Your task to perform on an android device: turn pop-ups on in chrome Image 0: 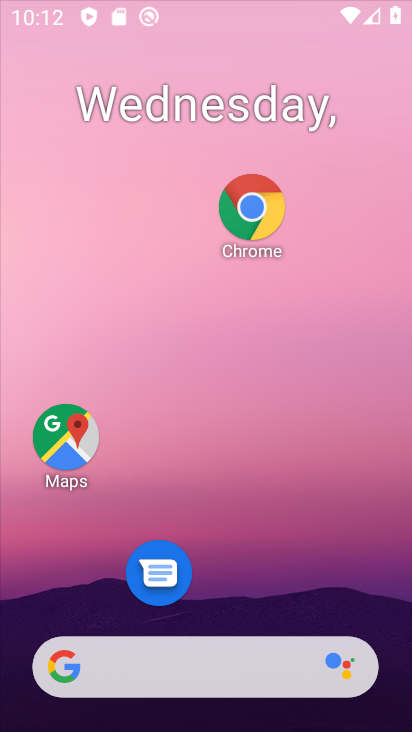
Step 0: drag from (281, 538) to (277, 105)
Your task to perform on an android device: turn pop-ups on in chrome Image 1: 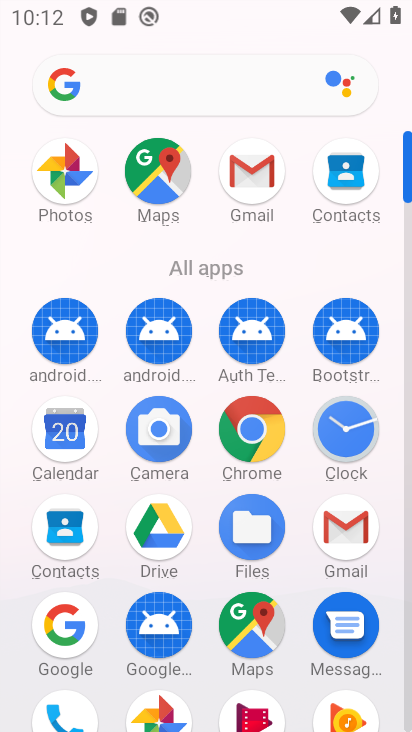
Step 1: click (243, 445)
Your task to perform on an android device: turn pop-ups on in chrome Image 2: 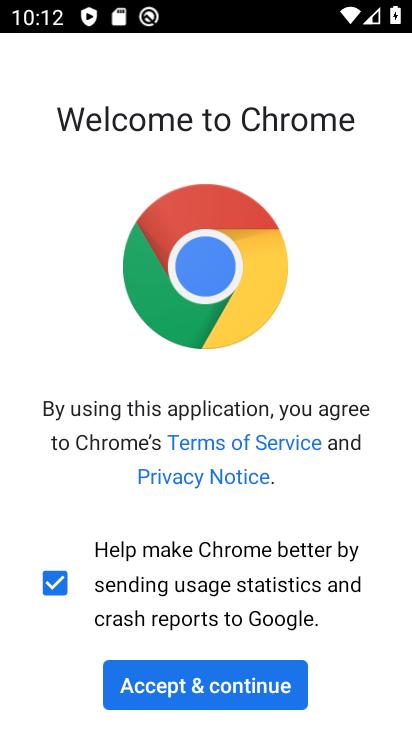
Step 2: click (250, 693)
Your task to perform on an android device: turn pop-ups on in chrome Image 3: 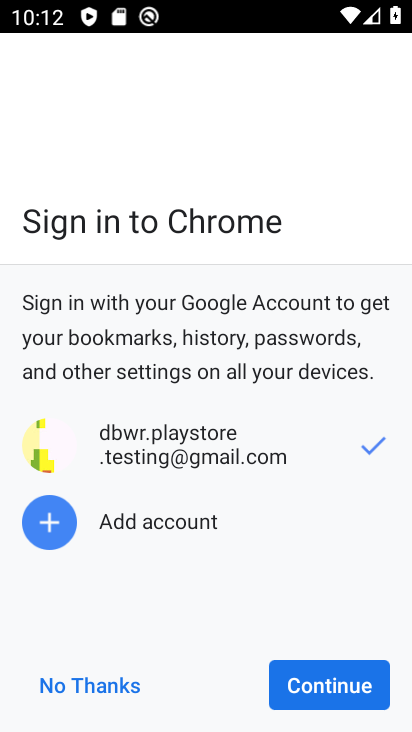
Step 3: click (293, 682)
Your task to perform on an android device: turn pop-ups on in chrome Image 4: 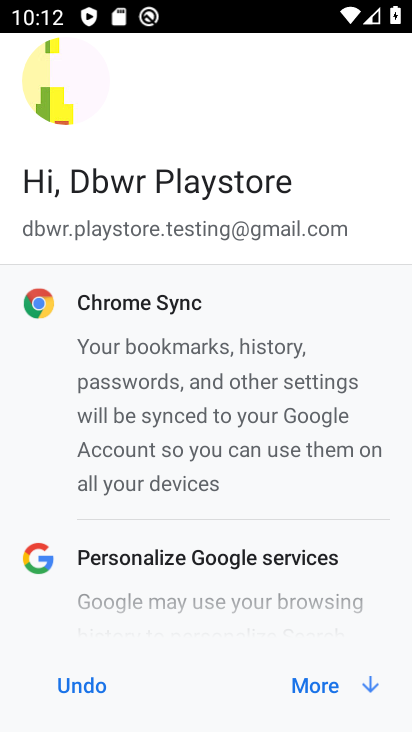
Step 4: click (290, 687)
Your task to perform on an android device: turn pop-ups on in chrome Image 5: 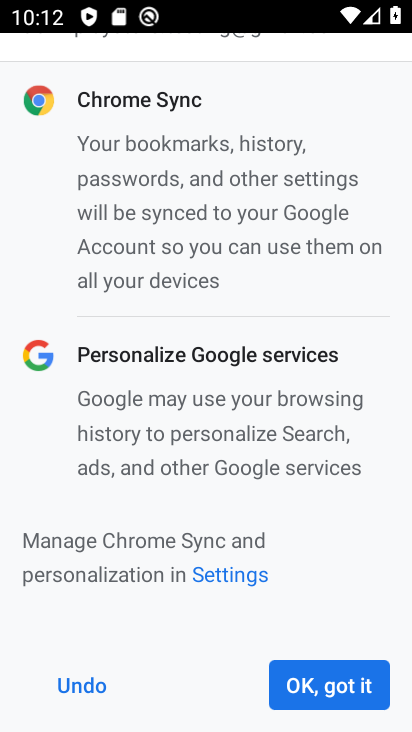
Step 5: click (290, 687)
Your task to perform on an android device: turn pop-ups on in chrome Image 6: 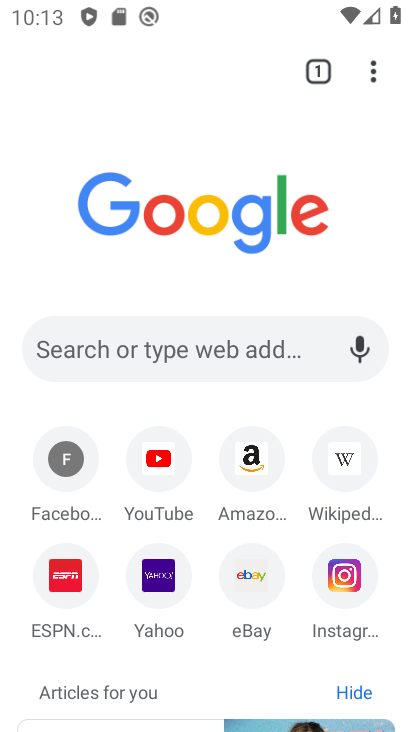
Step 6: drag from (372, 73) to (234, 597)
Your task to perform on an android device: turn pop-ups on in chrome Image 7: 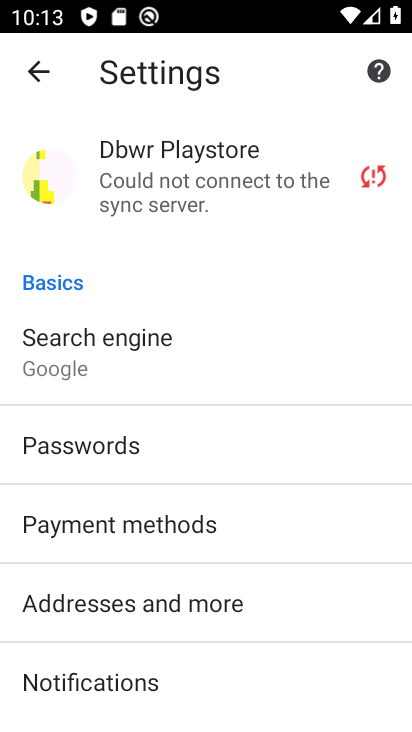
Step 7: drag from (240, 665) to (218, 333)
Your task to perform on an android device: turn pop-ups on in chrome Image 8: 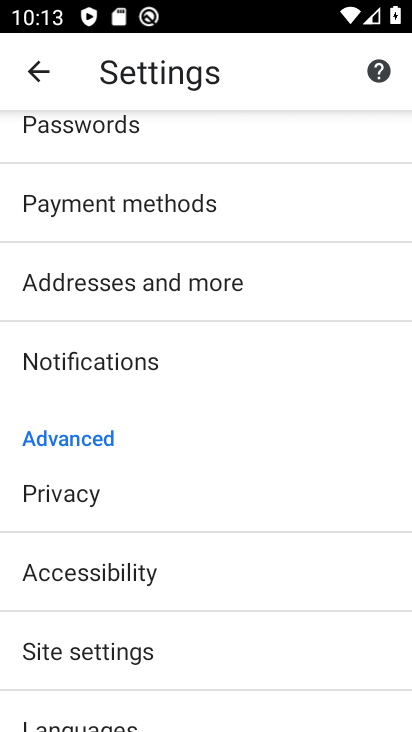
Step 8: drag from (209, 672) to (216, 354)
Your task to perform on an android device: turn pop-ups on in chrome Image 9: 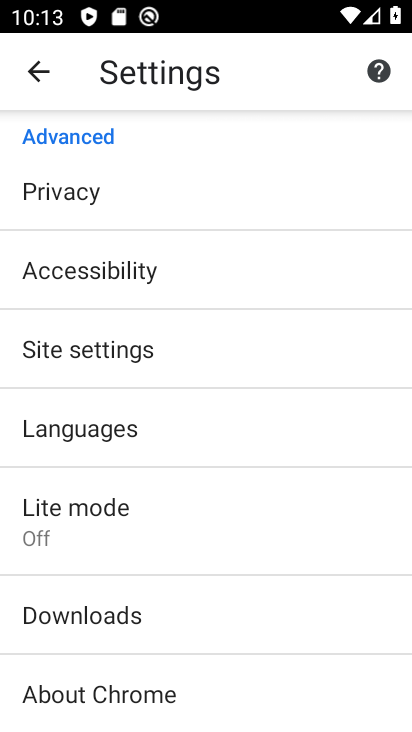
Step 9: click (175, 350)
Your task to perform on an android device: turn pop-ups on in chrome Image 10: 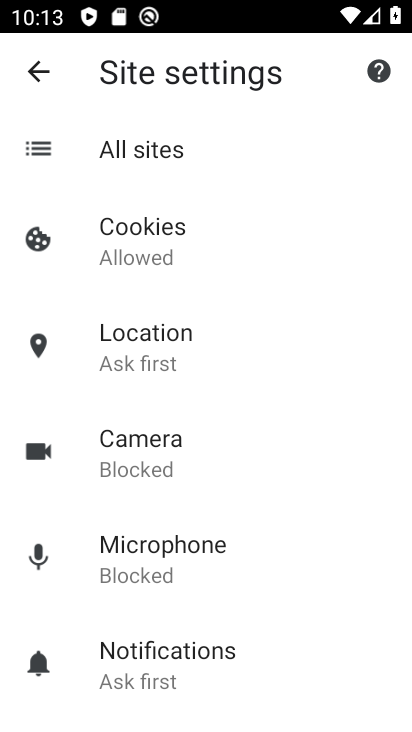
Step 10: drag from (289, 644) to (269, 218)
Your task to perform on an android device: turn pop-ups on in chrome Image 11: 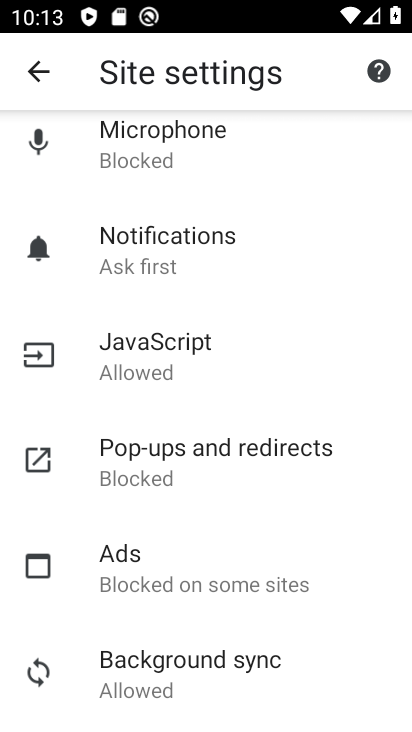
Step 11: click (282, 452)
Your task to perform on an android device: turn pop-ups on in chrome Image 12: 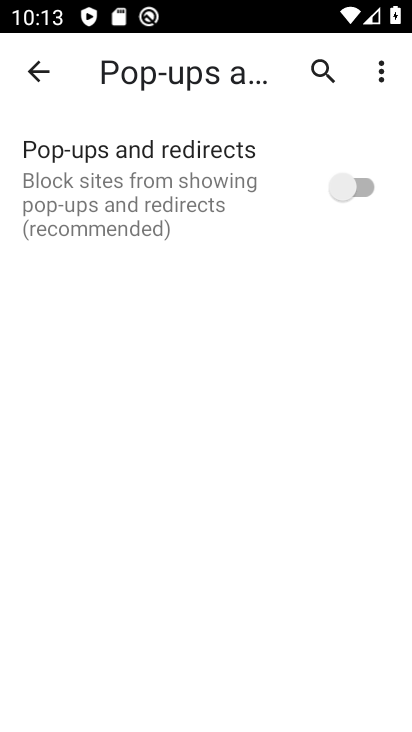
Step 12: click (350, 188)
Your task to perform on an android device: turn pop-ups on in chrome Image 13: 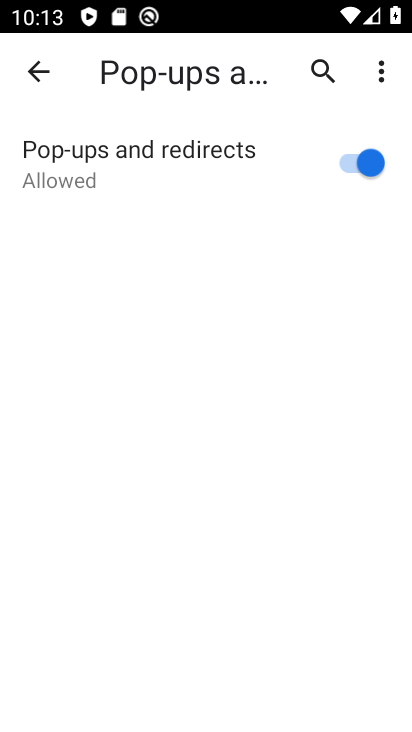
Step 13: task complete